Your task to perform on an android device: clear history in the chrome app Image 0: 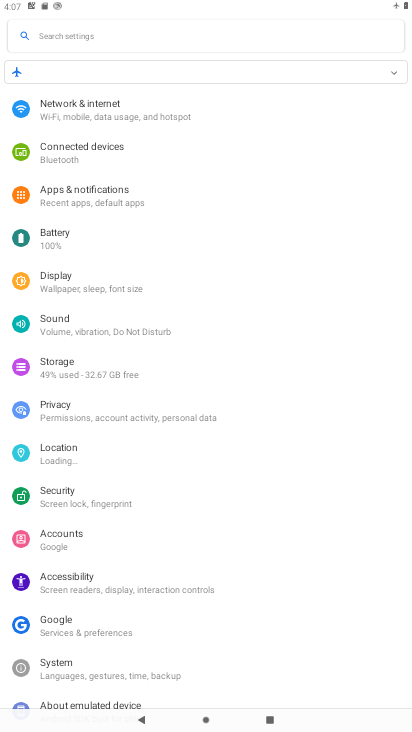
Step 0: press home button
Your task to perform on an android device: clear history in the chrome app Image 1: 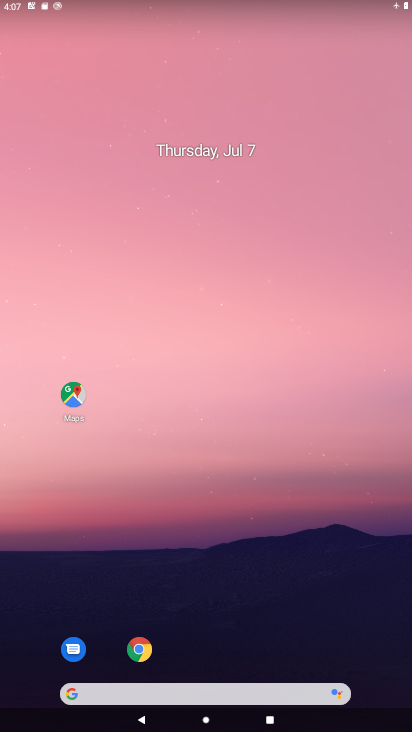
Step 1: click (139, 651)
Your task to perform on an android device: clear history in the chrome app Image 2: 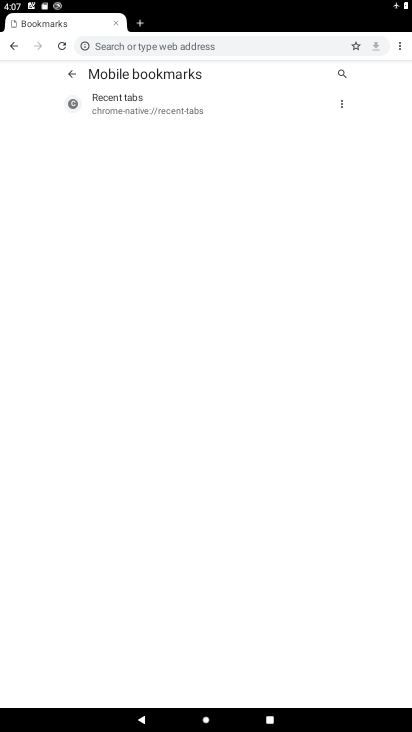
Step 2: click (398, 45)
Your task to perform on an android device: clear history in the chrome app Image 3: 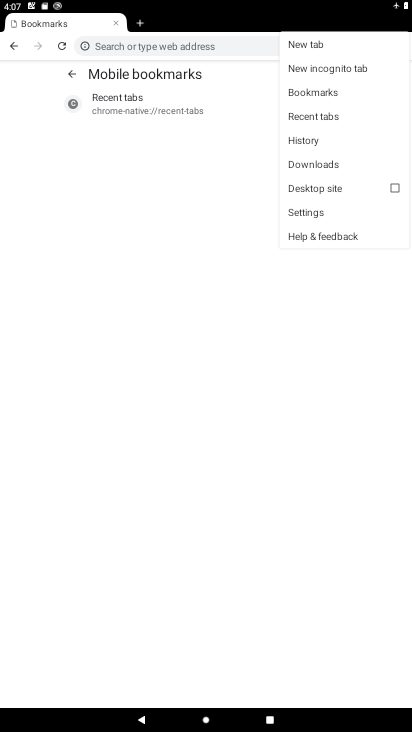
Step 3: click (309, 140)
Your task to perform on an android device: clear history in the chrome app Image 4: 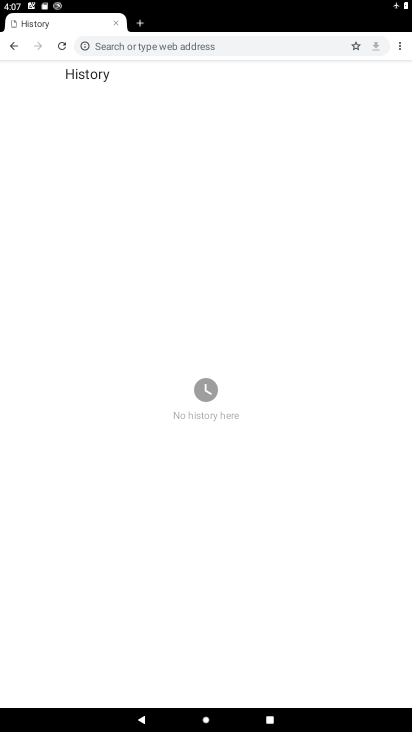
Step 4: task complete